Your task to perform on an android device: visit the assistant section in the google photos Image 0: 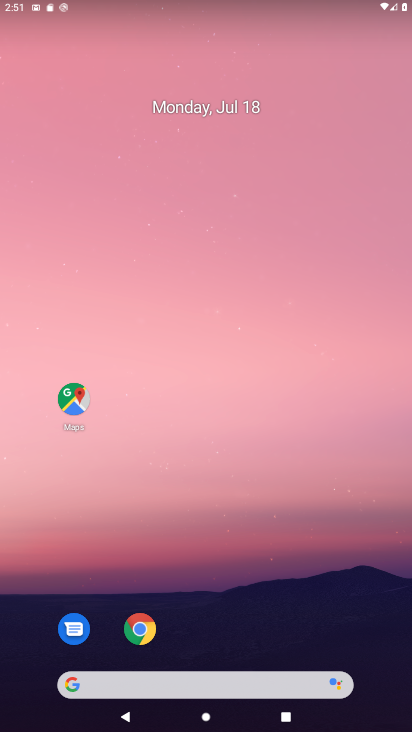
Step 0: drag from (327, 595) to (365, 157)
Your task to perform on an android device: visit the assistant section in the google photos Image 1: 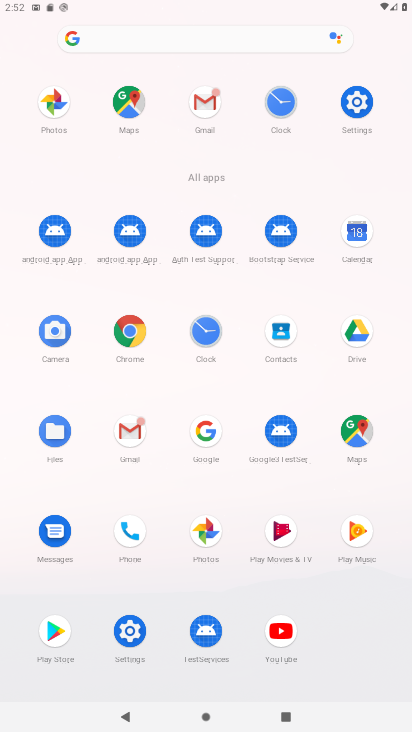
Step 1: click (214, 523)
Your task to perform on an android device: visit the assistant section in the google photos Image 2: 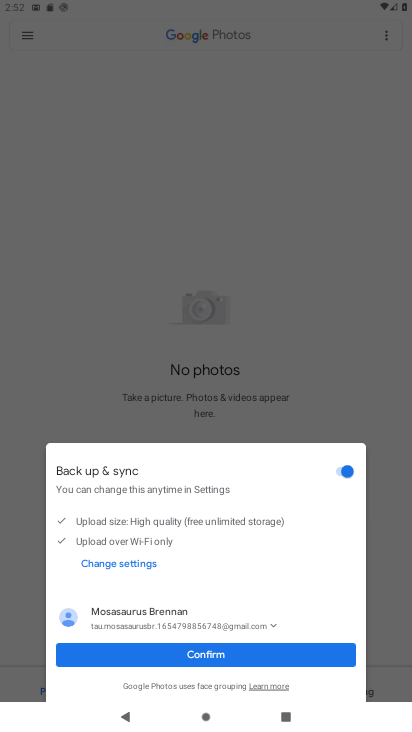
Step 2: click (258, 660)
Your task to perform on an android device: visit the assistant section in the google photos Image 3: 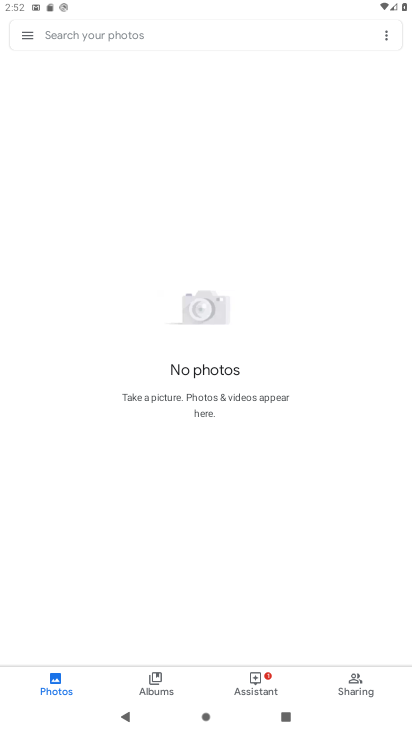
Step 3: click (262, 685)
Your task to perform on an android device: visit the assistant section in the google photos Image 4: 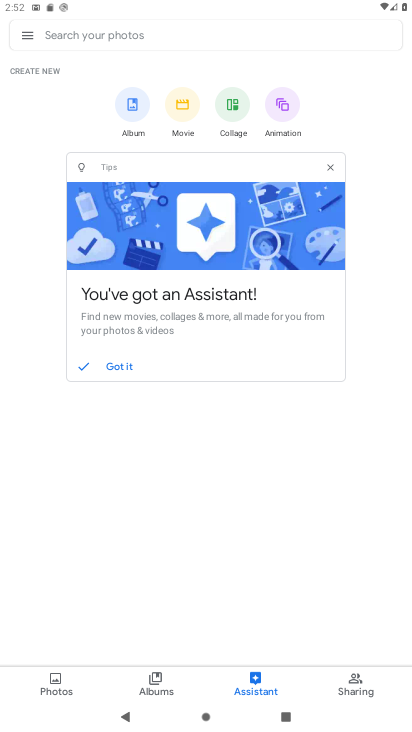
Step 4: task complete